Your task to perform on an android device: change the clock display to digital Image 0: 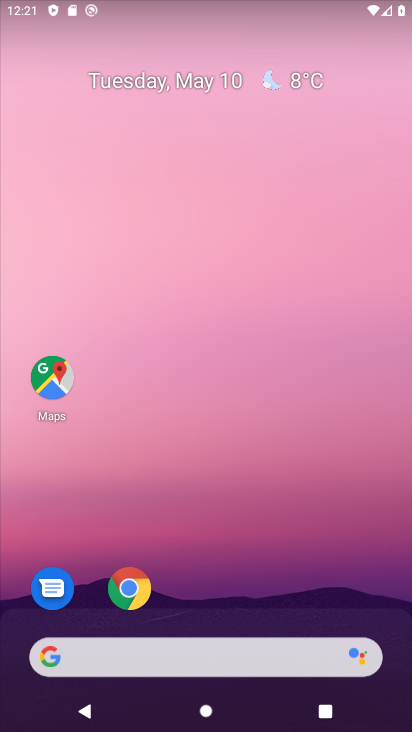
Step 0: drag from (225, 634) to (174, 51)
Your task to perform on an android device: change the clock display to digital Image 1: 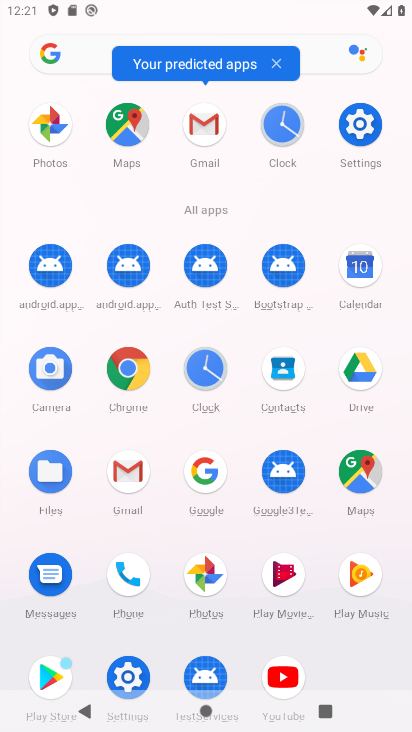
Step 1: click (214, 382)
Your task to perform on an android device: change the clock display to digital Image 2: 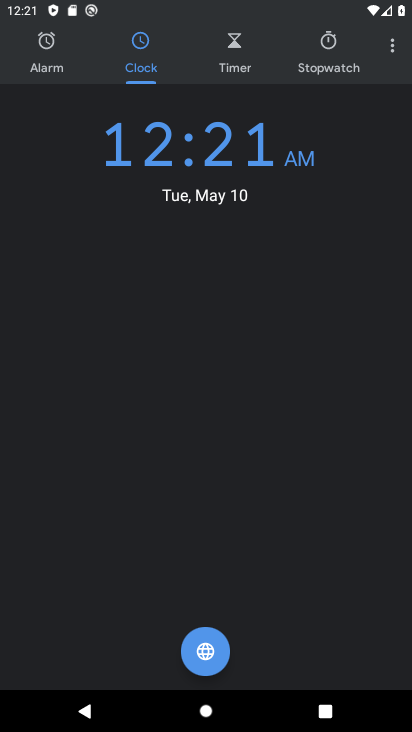
Step 2: click (394, 45)
Your task to perform on an android device: change the clock display to digital Image 3: 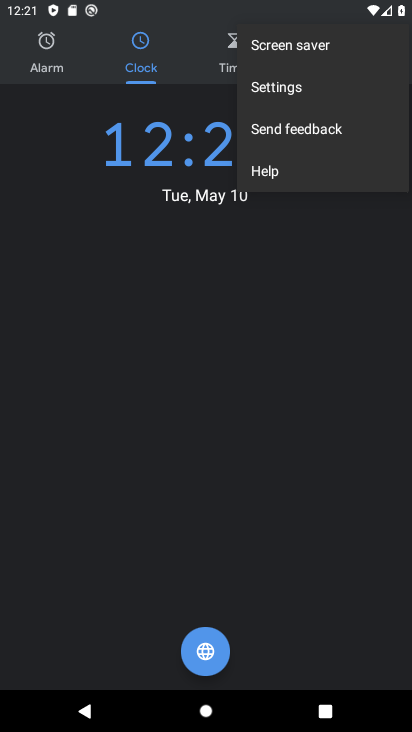
Step 3: click (264, 97)
Your task to perform on an android device: change the clock display to digital Image 4: 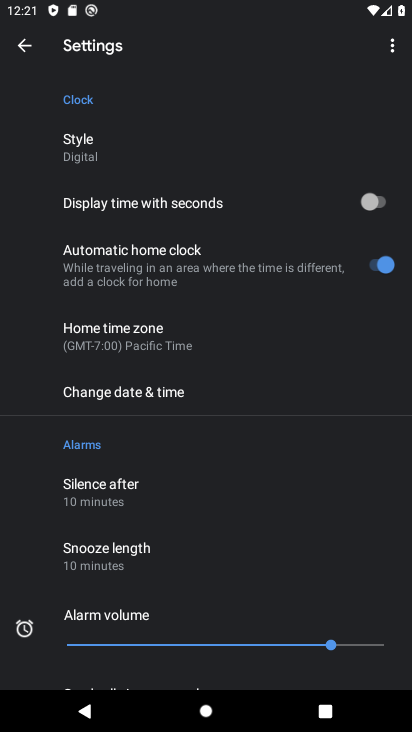
Step 4: click (164, 387)
Your task to perform on an android device: change the clock display to digital Image 5: 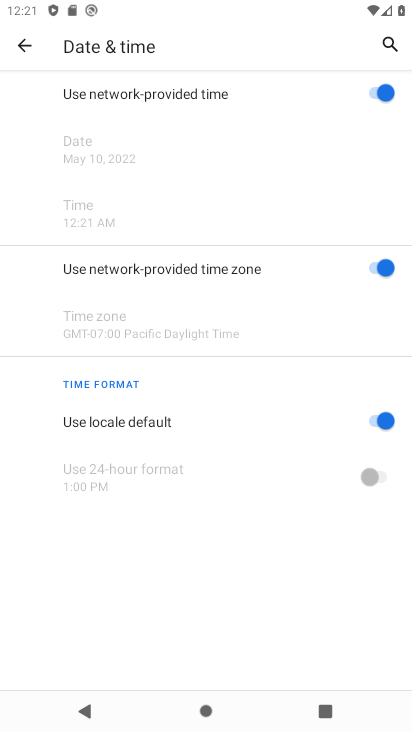
Step 5: press back button
Your task to perform on an android device: change the clock display to digital Image 6: 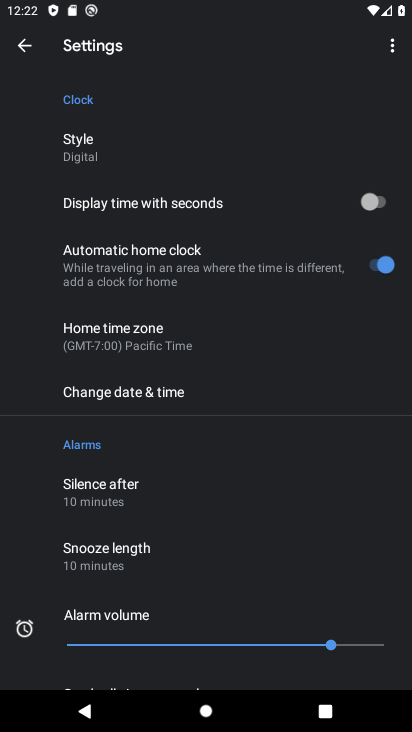
Step 6: click (108, 135)
Your task to perform on an android device: change the clock display to digital Image 7: 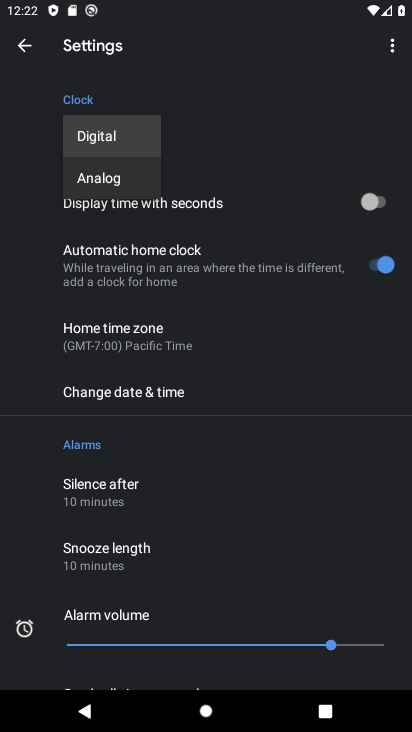
Step 7: task complete